Your task to perform on an android device: search for starred emails in the gmail app Image 0: 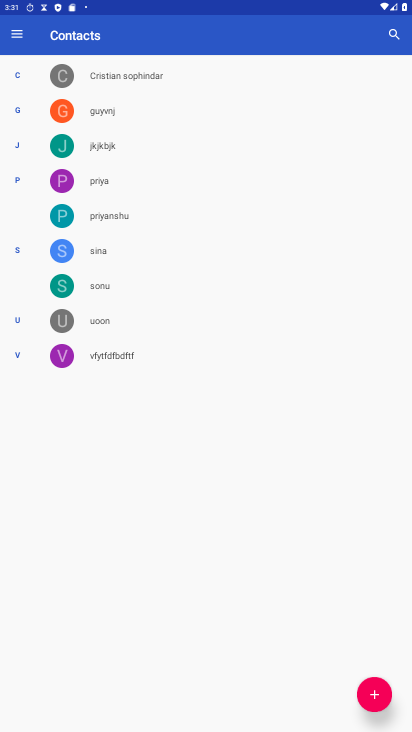
Step 0: press home button
Your task to perform on an android device: search for starred emails in the gmail app Image 1: 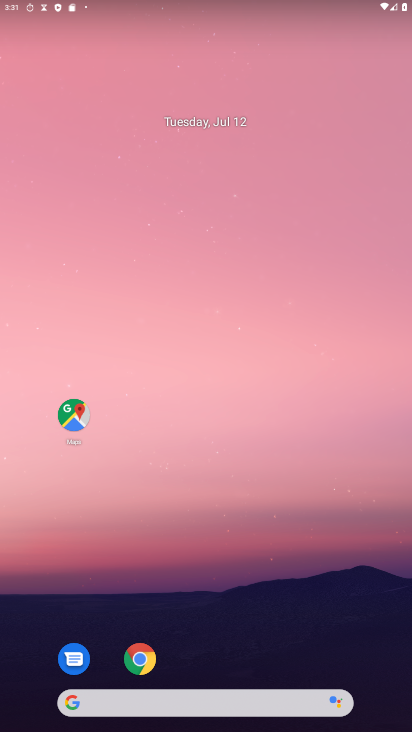
Step 1: drag from (248, 653) to (171, 87)
Your task to perform on an android device: search for starred emails in the gmail app Image 2: 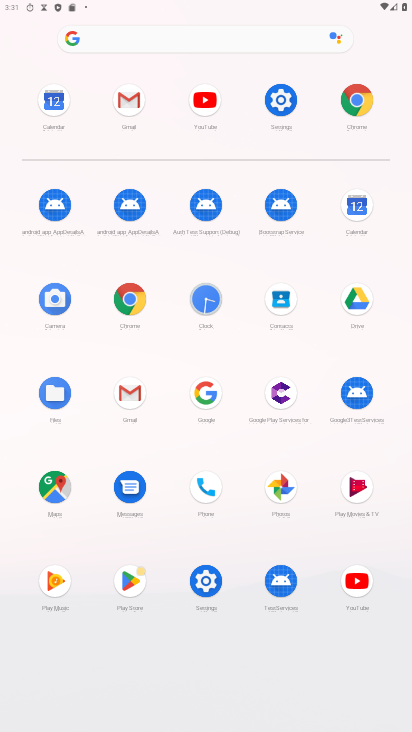
Step 2: click (128, 100)
Your task to perform on an android device: search for starred emails in the gmail app Image 3: 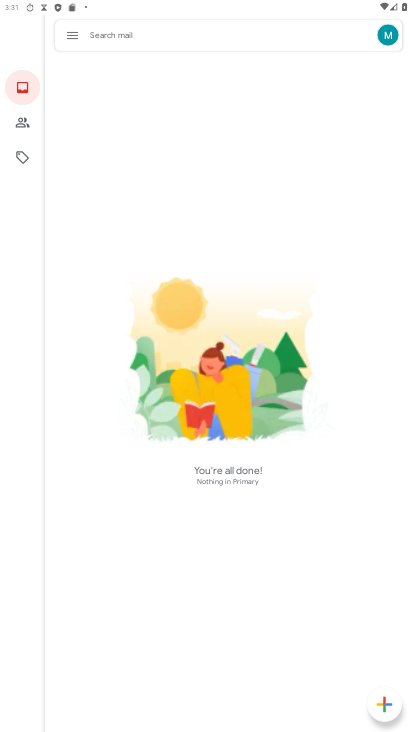
Step 3: click (70, 33)
Your task to perform on an android device: search for starred emails in the gmail app Image 4: 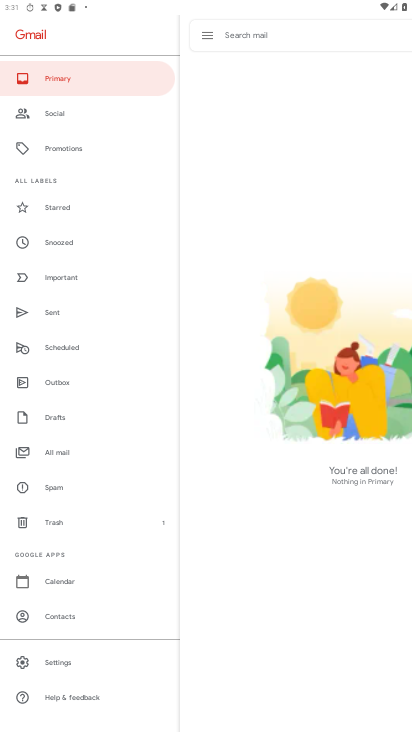
Step 4: click (61, 212)
Your task to perform on an android device: search for starred emails in the gmail app Image 5: 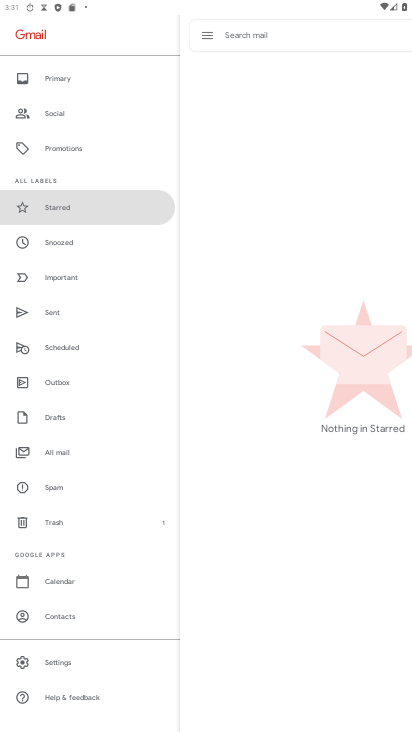
Step 5: task complete